Your task to perform on an android device: open app "Messenger Lite" (install if not already installed), go to login, and select forgot password Image 0: 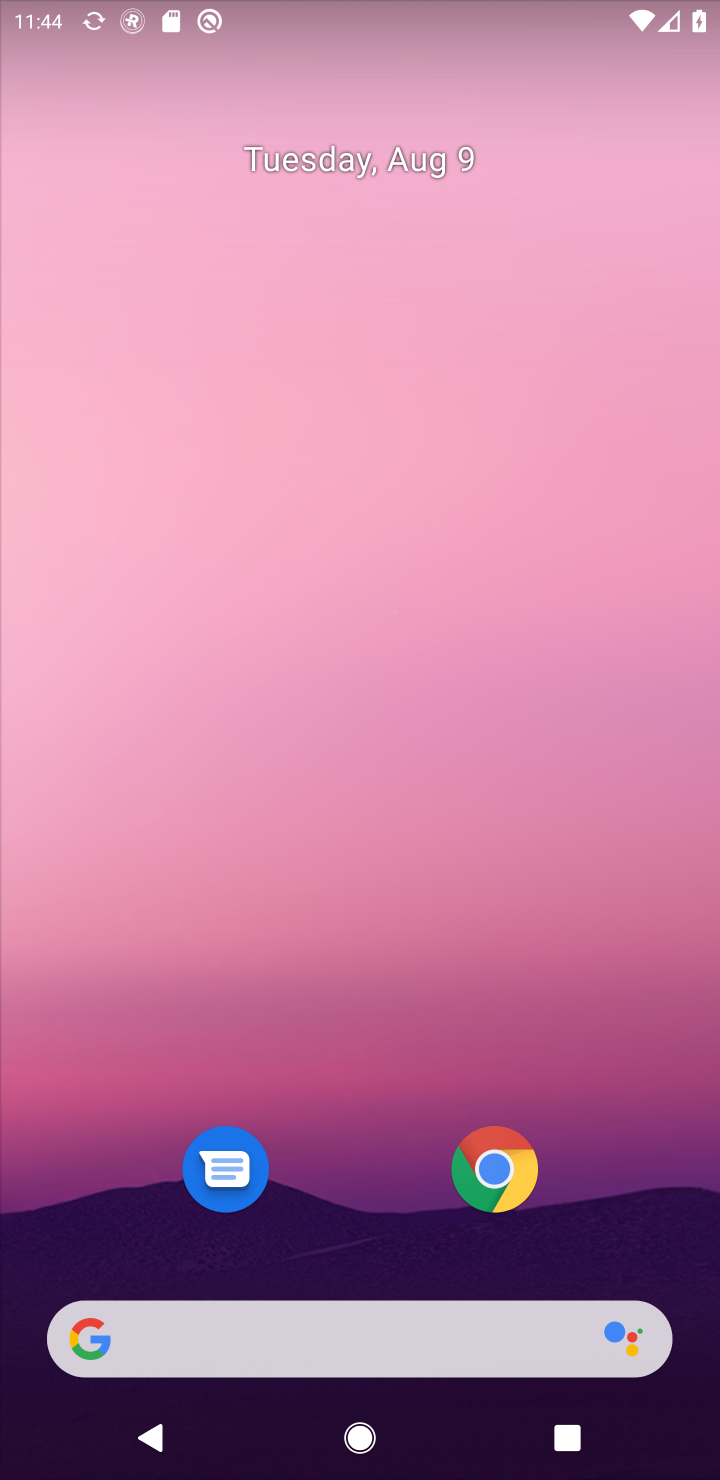
Step 0: press home button
Your task to perform on an android device: open app "Messenger Lite" (install if not already installed), go to login, and select forgot password Image 1: 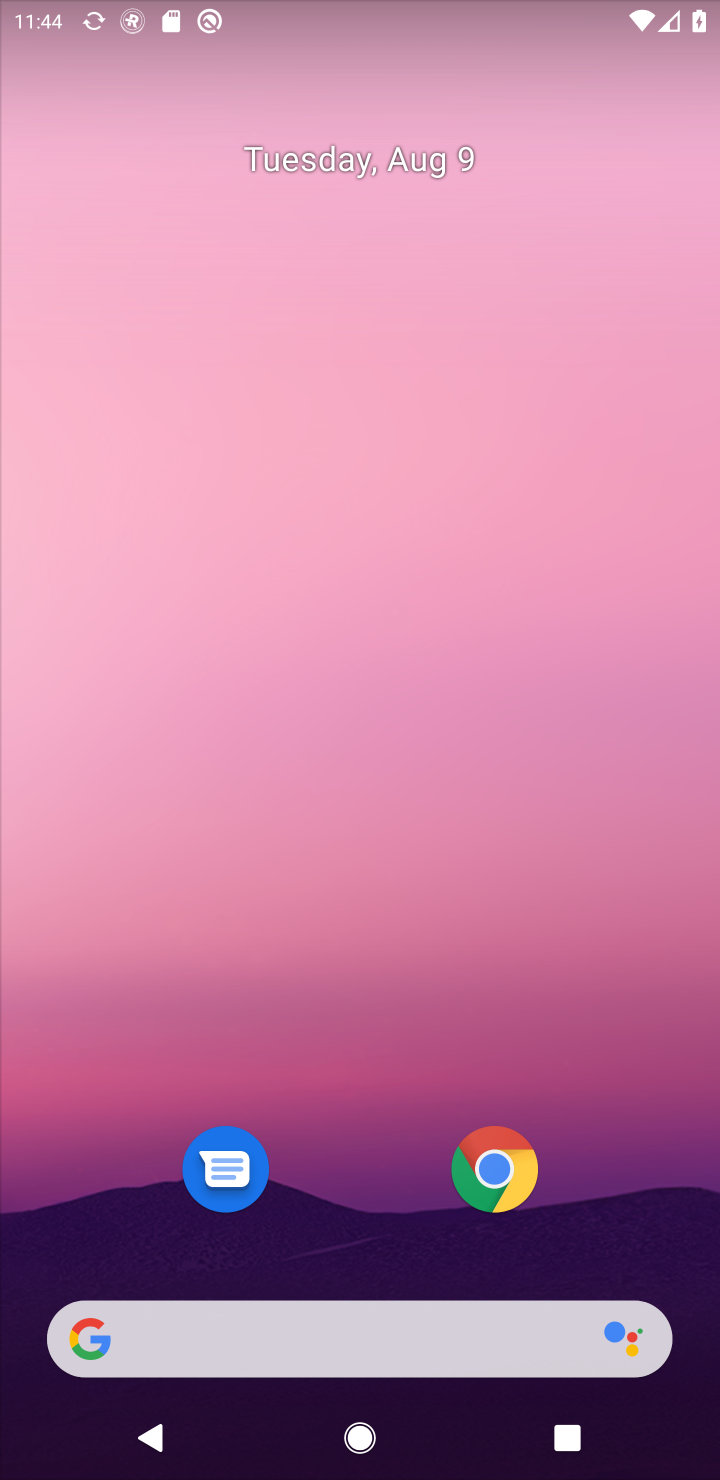
Step 1: drag from (619, 1217) to (662, 96)
Your task to perform on an android device: open app "Messenger Lite" (install if not already installed), go to login, and select forgot password Image 2: 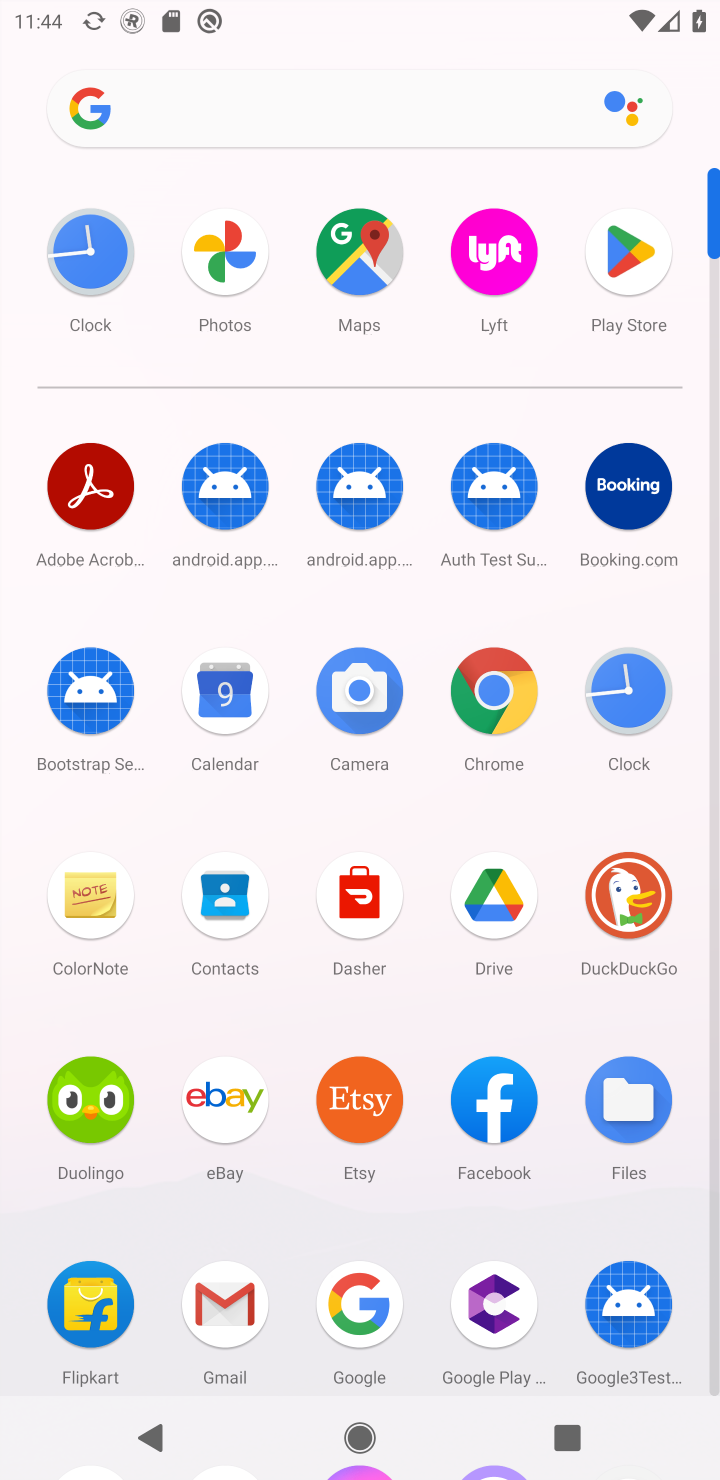
Step 2: click (626, 263)
Your task to perform on an android device: open app "Messenger Lite" (install if not already installed), go to login, and select forgot password Image 3: 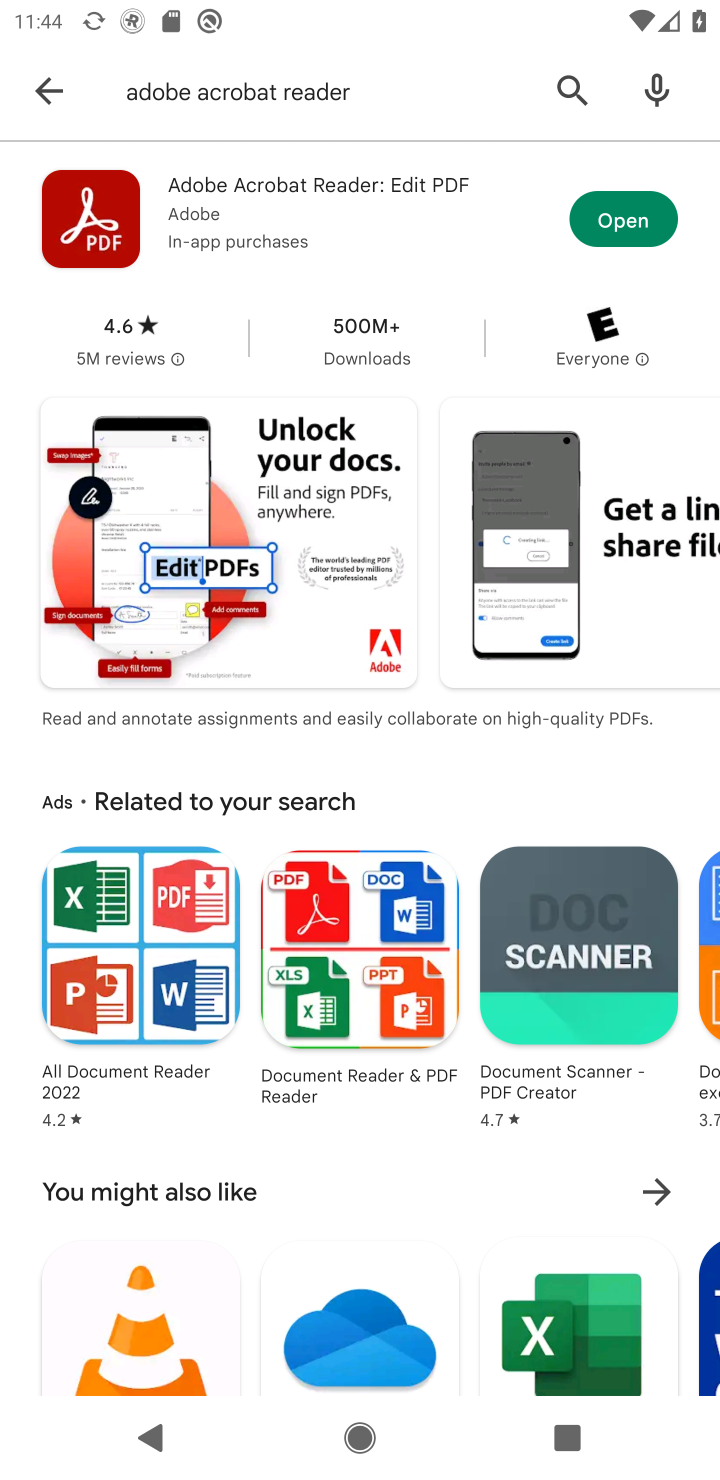
Step 3: click (565, 82)
Your task to perform on an android device: open app "Messenger Lite" (install if not already installed), go to login, and select forgot password Image 4: 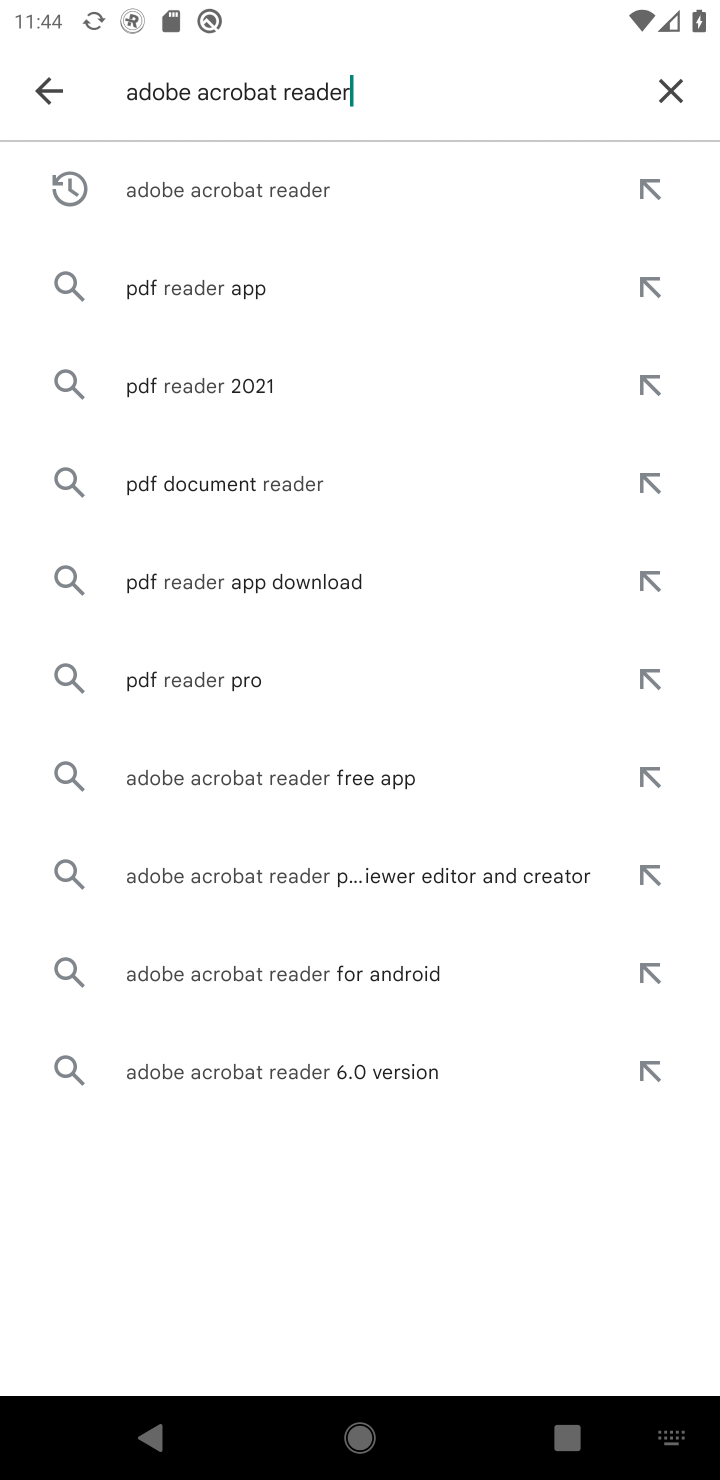
Step 4: click (665, 88)
Your task to perform on an android device: open app "Messenger Lite" (install if not already installed), go to login, and select forgot password Image 5: 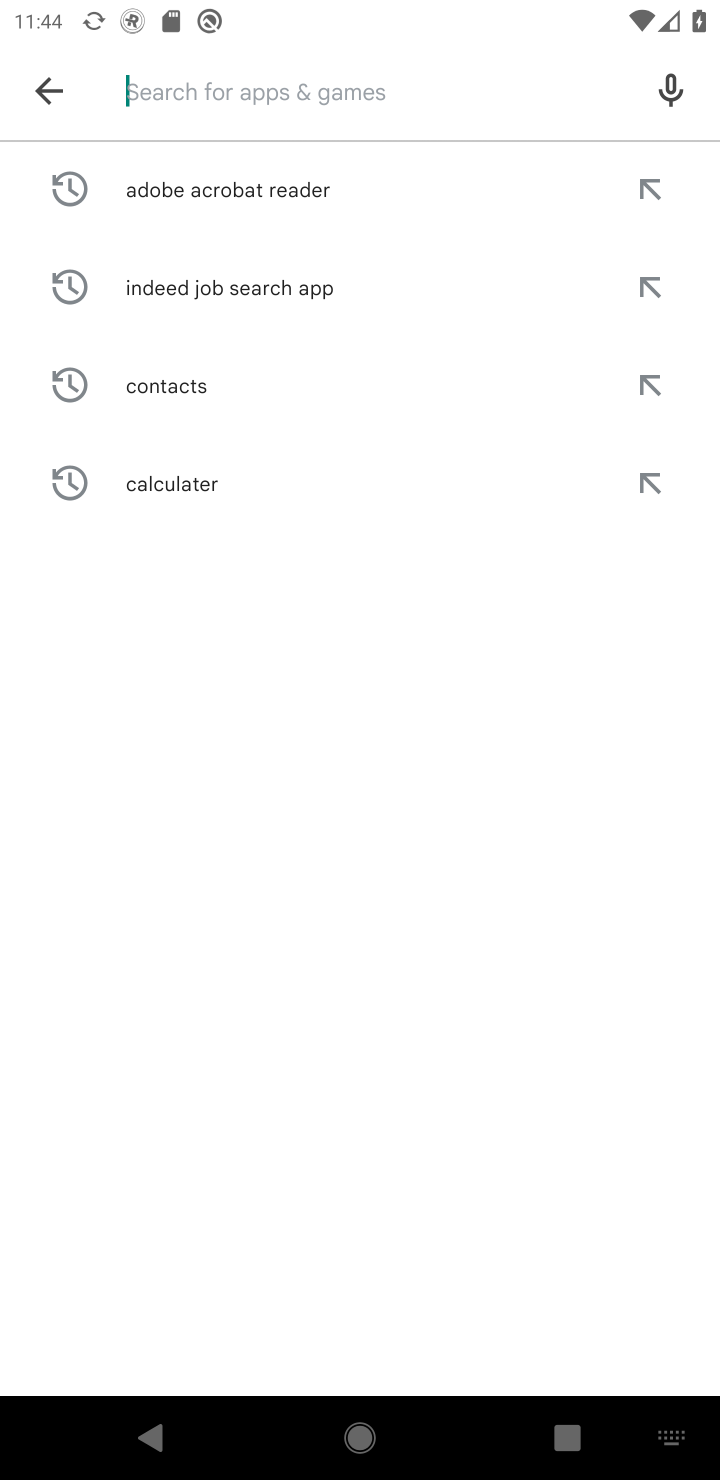
Step 5: type "messenger lite"
Your task to perform on an android device: open app "Messenger Lite" (install if not already installed), go to login, and select forgot password Image 6: 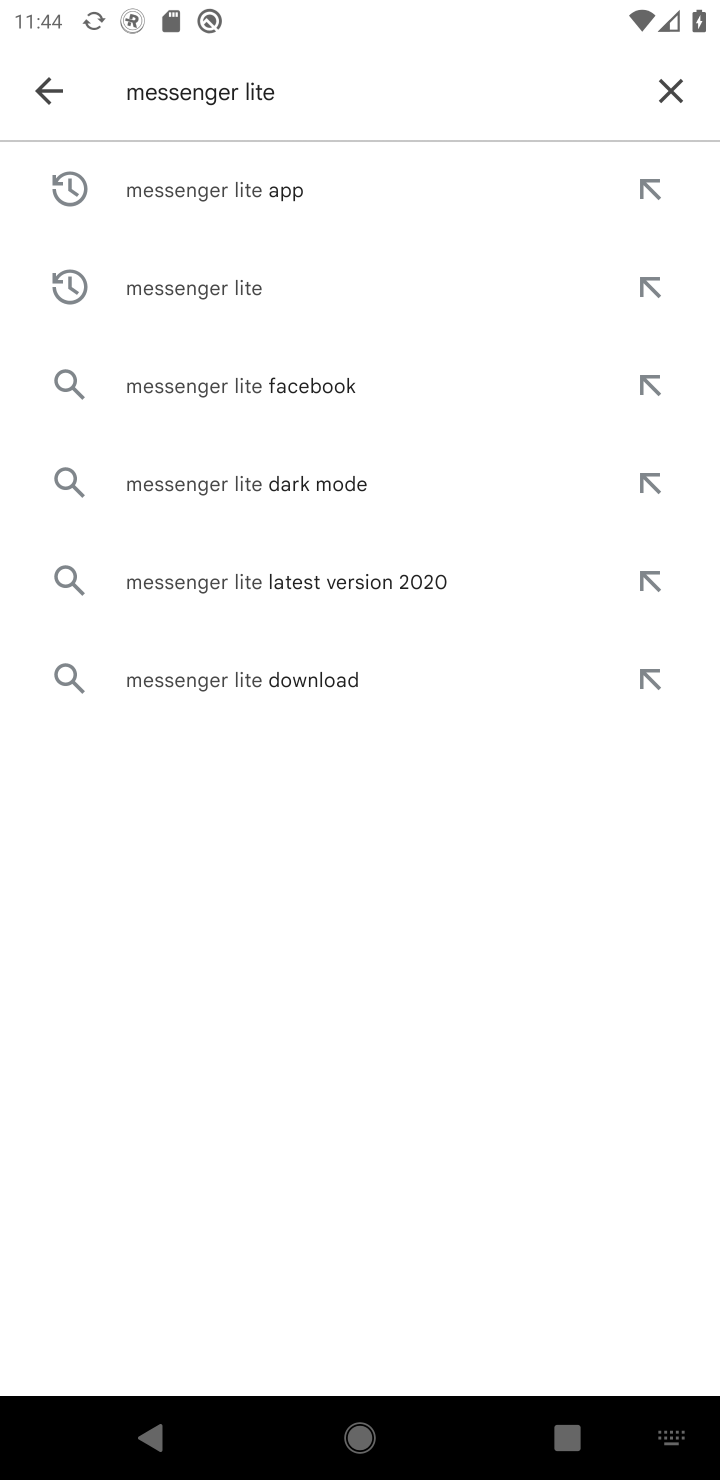
Step 6: click (303, 179)
Your task to perform on an android device: open app "Messenger Lite" (install if not already installed), go to login, and select forgot password Image 7: 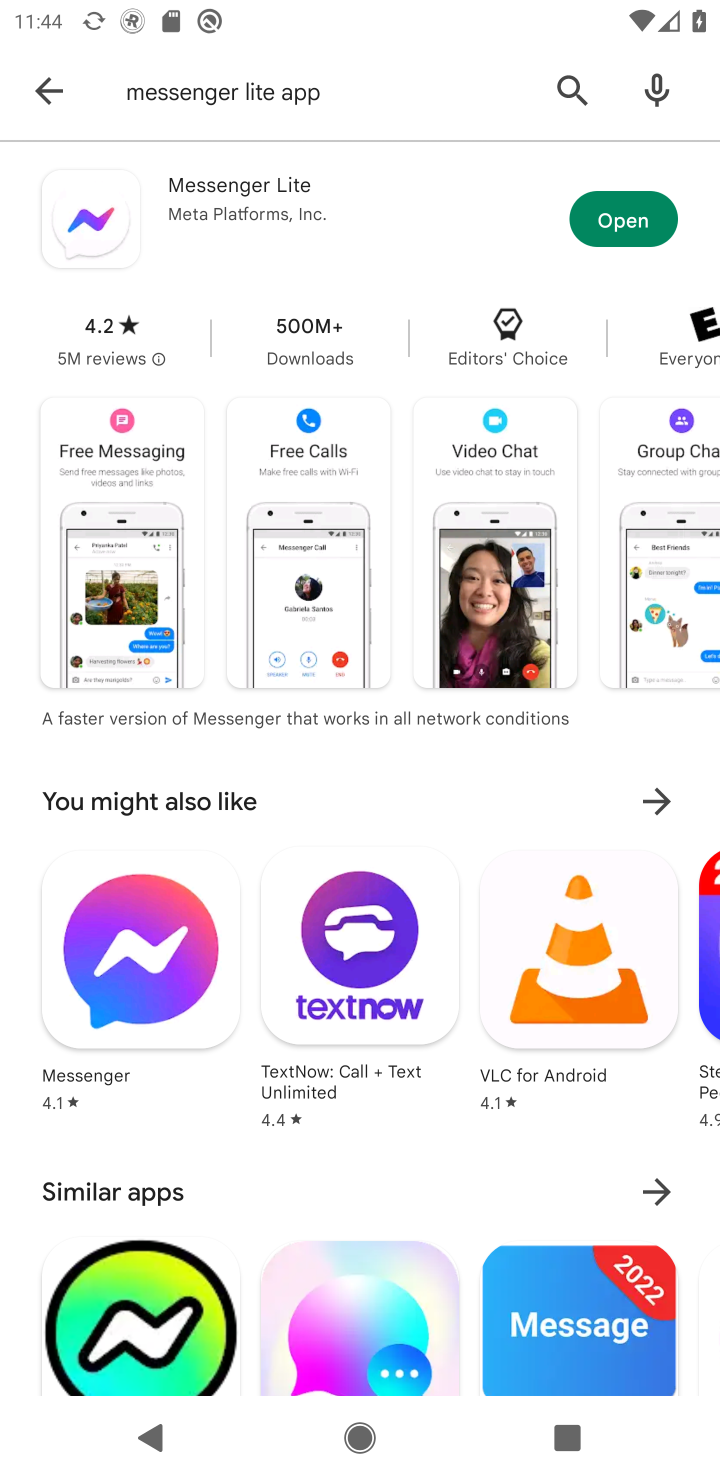
Step 7: click (631, 204)
Your task to perform on an android device: open app "Messenger Lite" (install if not already installed), go to login, and select forgot password Image 8: 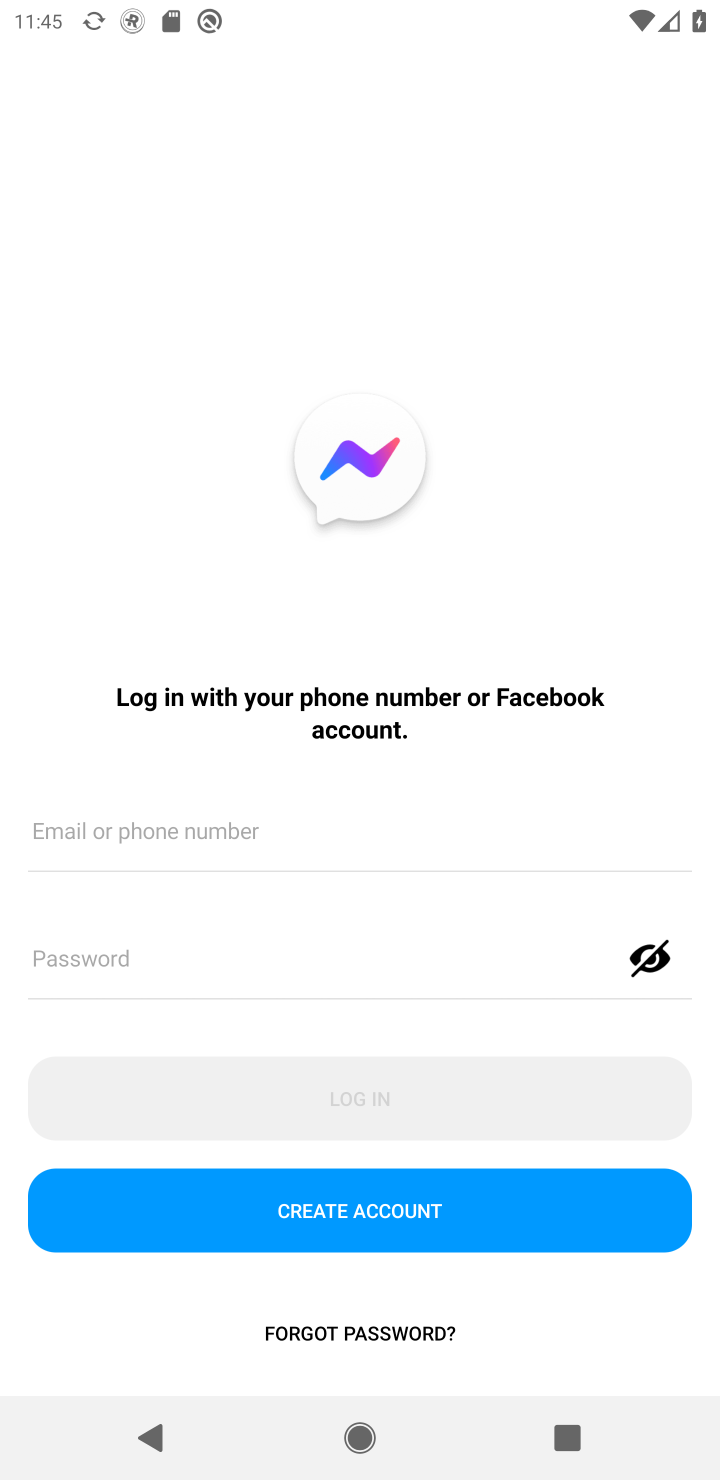
Step 8: click (361, 831)
Your task to perform on an android device: open app "Messenger Lite" (install if not already installed), go to login, and select forgot password Image 9: 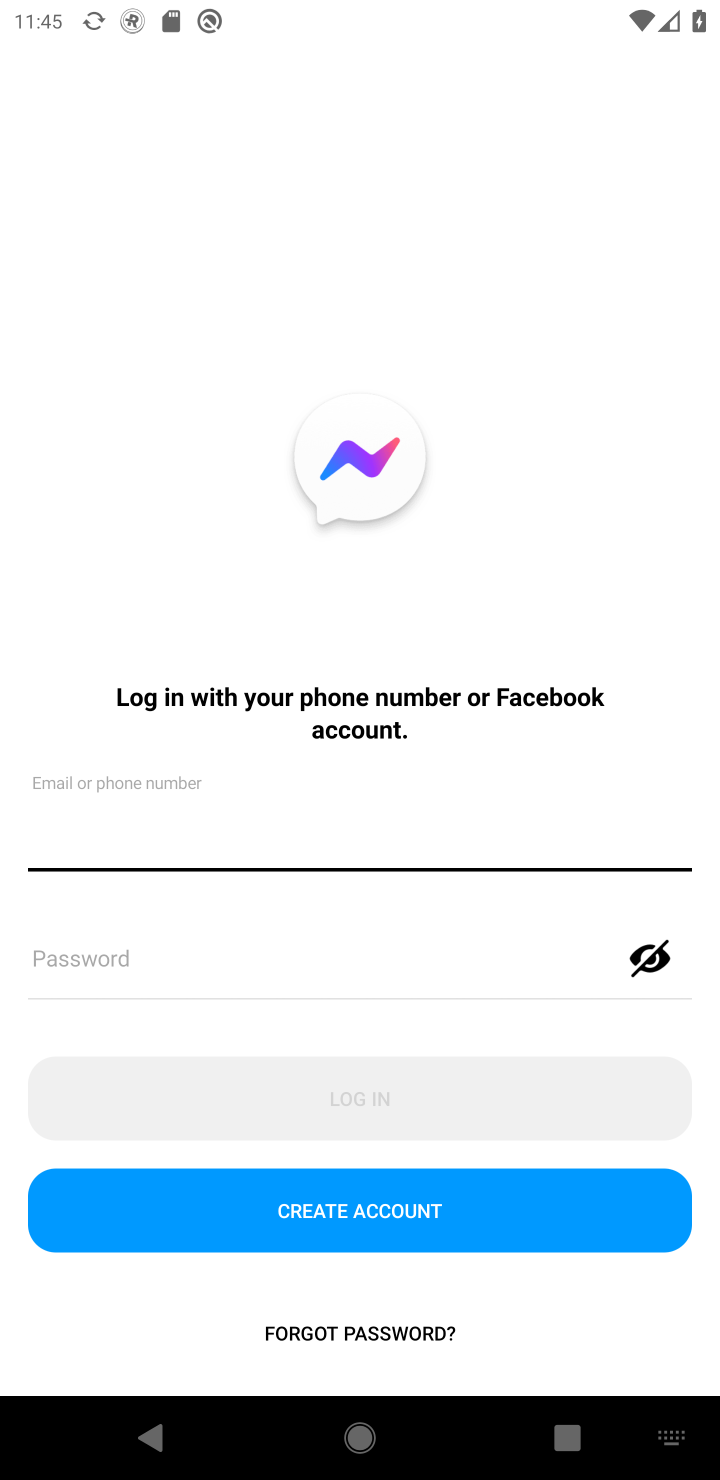
Step 9: click (364, 1334)
Your task to perform on an android device: open app "Messenger Lite" (install if not already installed), go to login, and select forgot password Image 10: 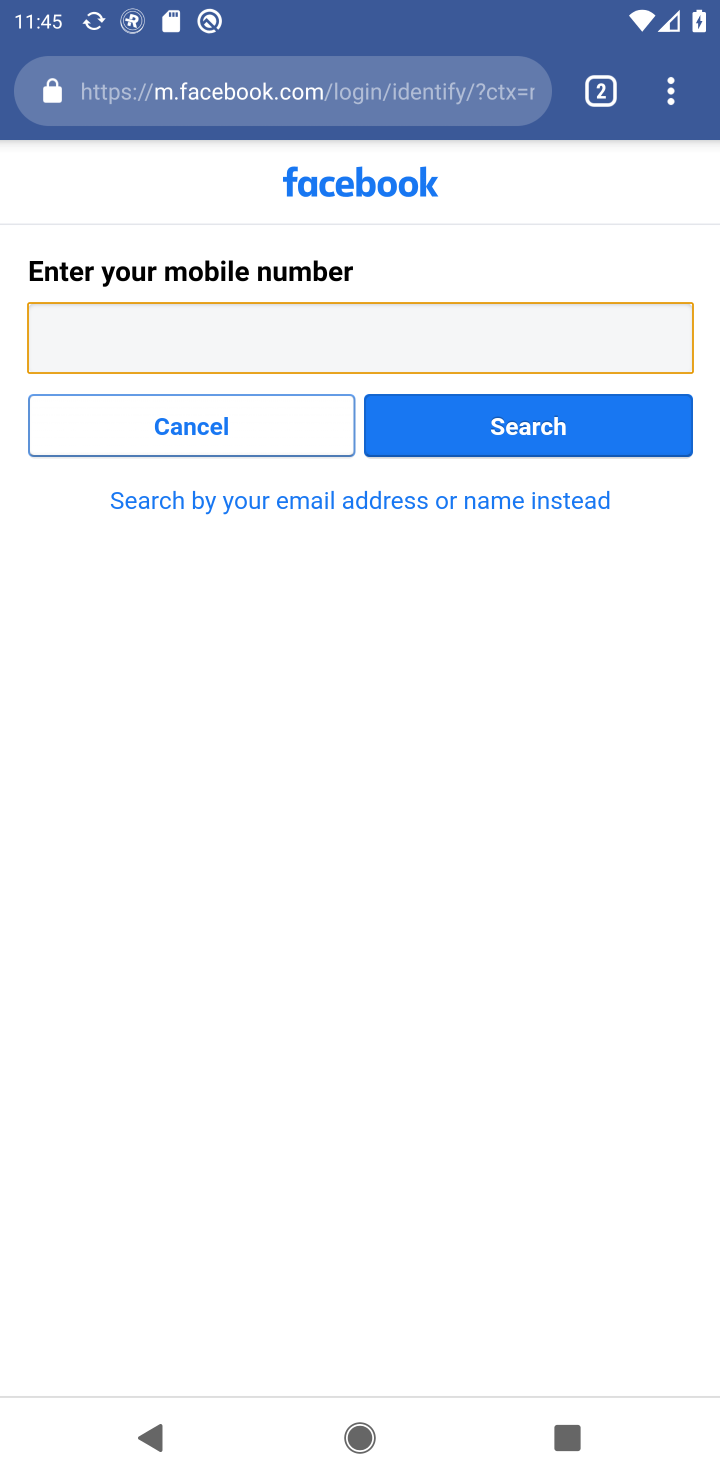
Step 10: task complete